Your task to perform on an android device: Open Google Chrome and open the bookmarks view Image 0: 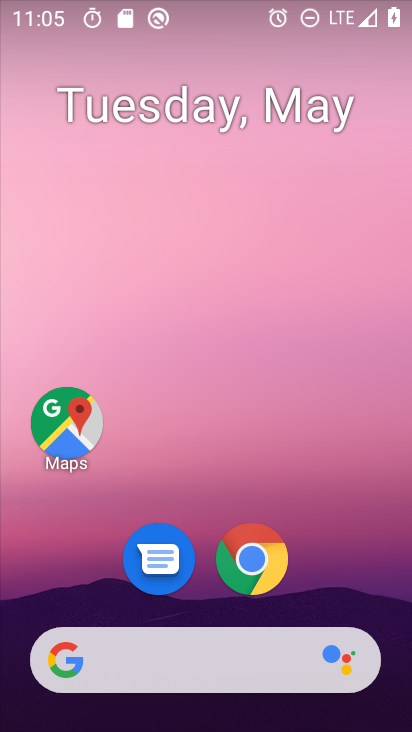
Step 0: drag from (405, 643) to (253, 55)
Your task to perform on an android device: Open Google Chrome and open the bookmarks view Image 1: 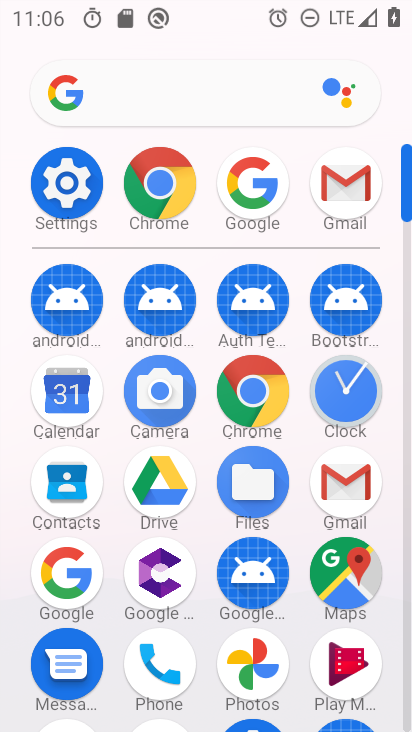
Step 1: click (231, 401)
Your task to perform on an android device: Open Google Chrome and open the bookmarks view Image 2: 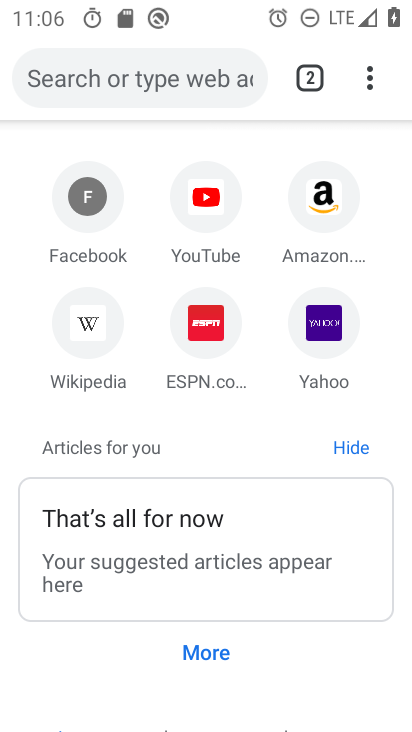
Step 2: click (368, 68)
Your task to perform on an android device: Open Google Chrome and open the bookmarks view Image 3: 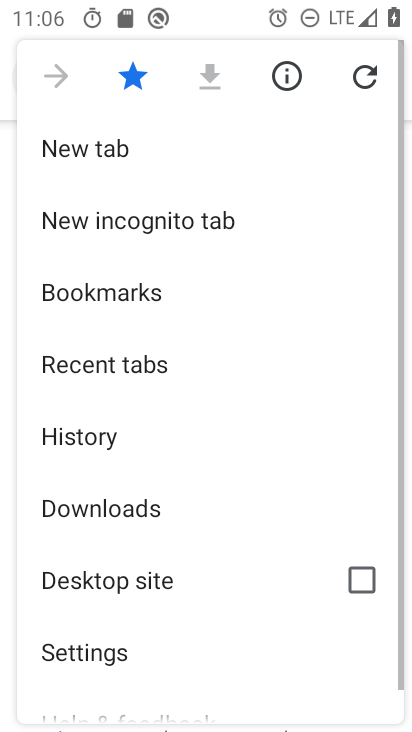
Step 3: click (123, 297)
Your task to perform on an android device: Open Google Chrome and open the bookmarks view Image 4: 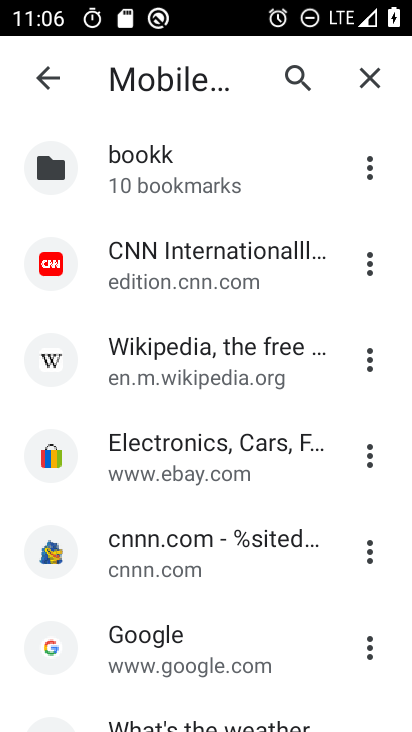
Step 4: task complete